Your task to perform on an android device: change your default location settings in chrome Image 0: 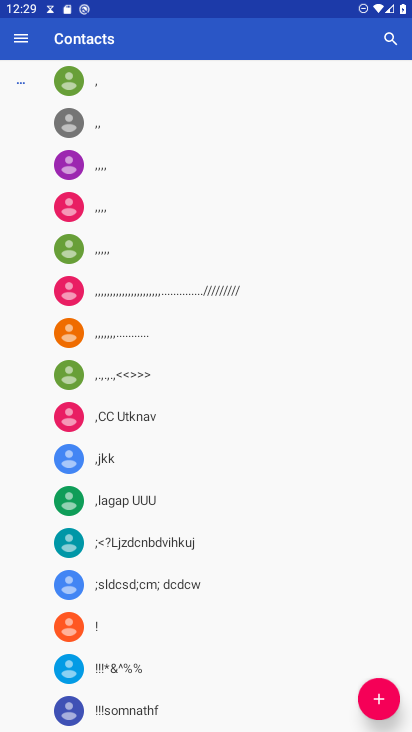
Step 0: press back button
Your task to perform on an android device: change your default location settings in chrome Image 1: 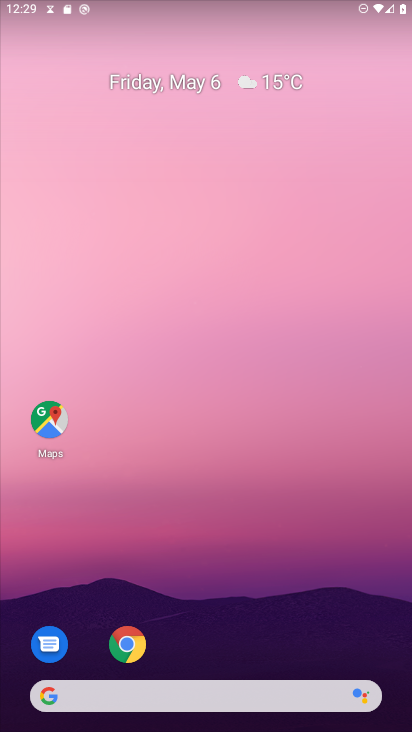
Step 1: drag from (273, 590) to (209, 3)
Your task to perform on an android device: change your default location settings in chrome Image 2: 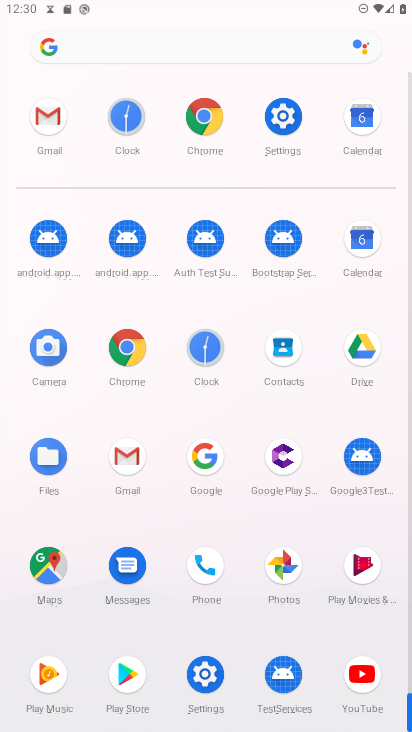
Step 2: click (129, 348)
Your task to perform on an android device: change your default location settings in chrome Image 3: 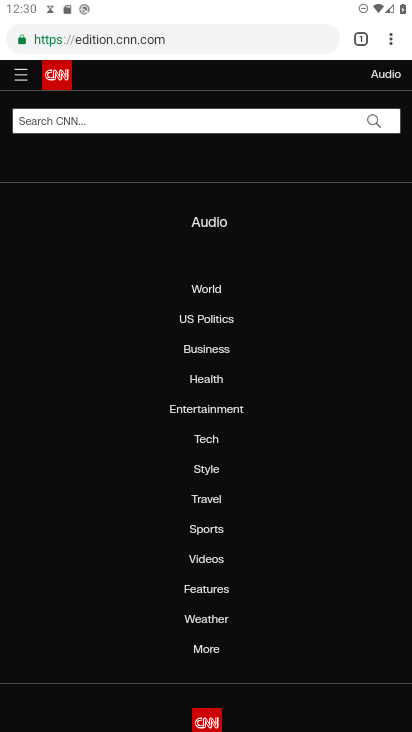
Step 3: drag from (390, 41) to (251, 466)
Your task to perform on an android device: change your default location settings in chrome Image 4: 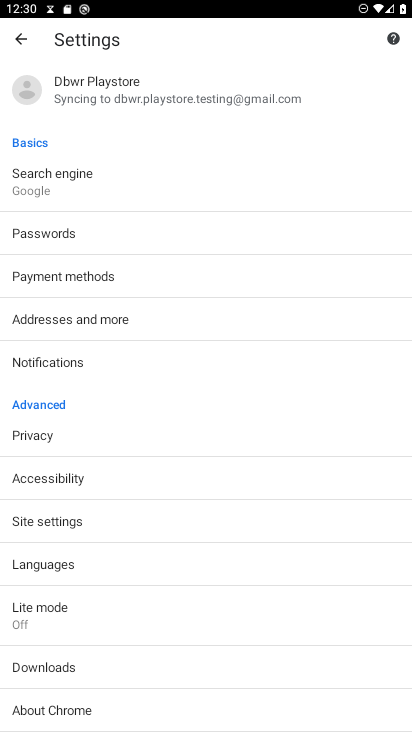
Step 4: drag from (277, 439) to (328, 107)
Your task to perform on an android device: change your default location settings in chrome Image 5: 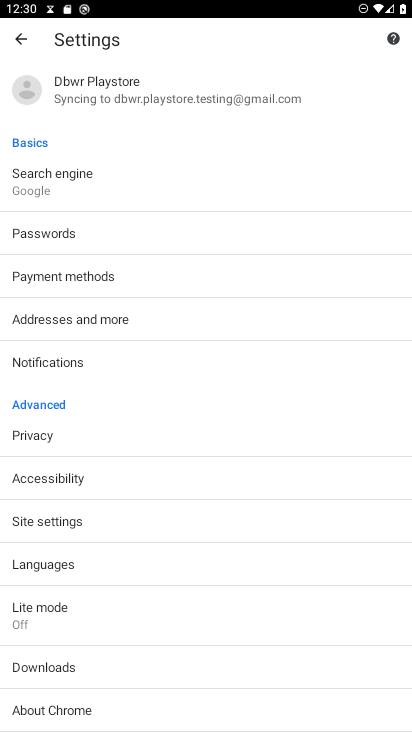
Step 5: click (100, 527)
Your task to perform on an android device: change your default location settings in chrome Image 6: 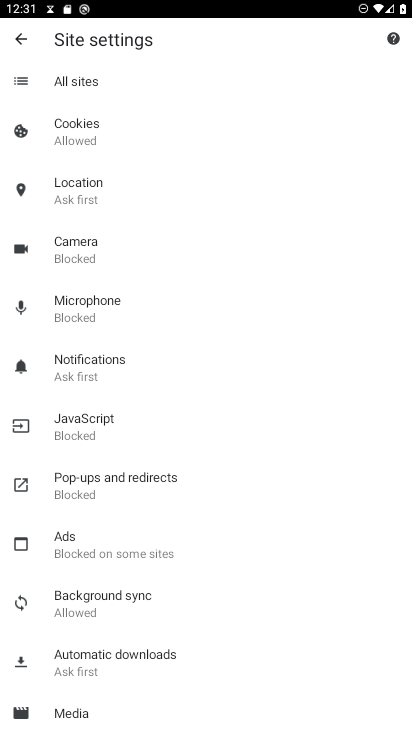
Step 6: click (108, 195)
Your task to perform on an android device: change your default location settings in chrome Image 7: 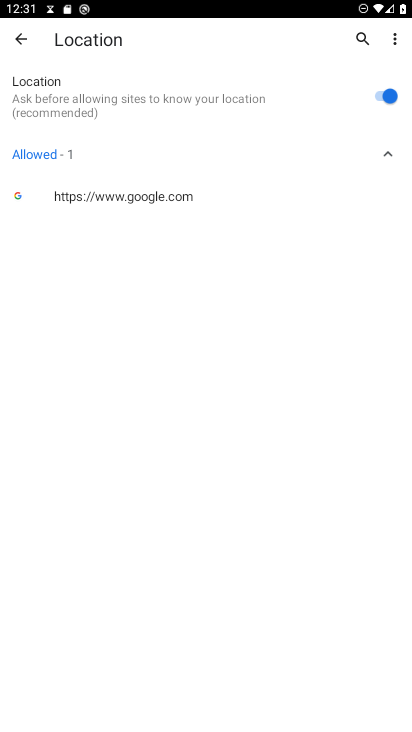
Step 7: click (392, 96)
Your task to perform on an android device: change your default location settings in chrome Image 8: 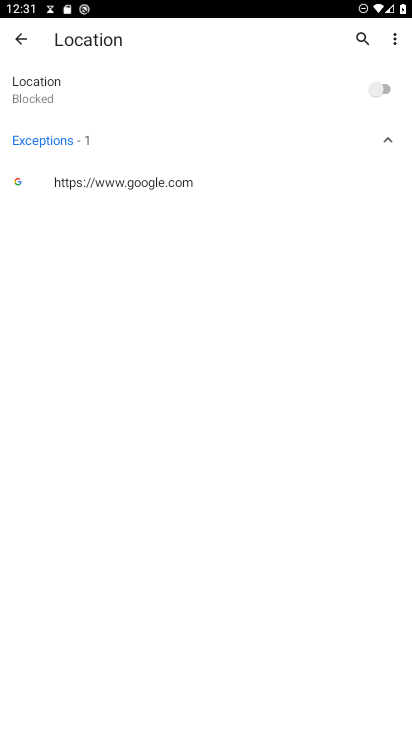
Step 8: task complete